Your task to perform on an android device: turn notification dots on Image 0: 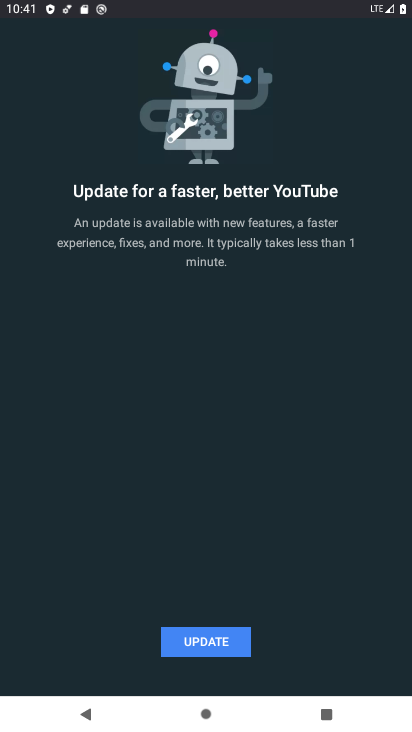
Step 0: press home button
Your task to perform on an android device: turn notification dots on Image 1: 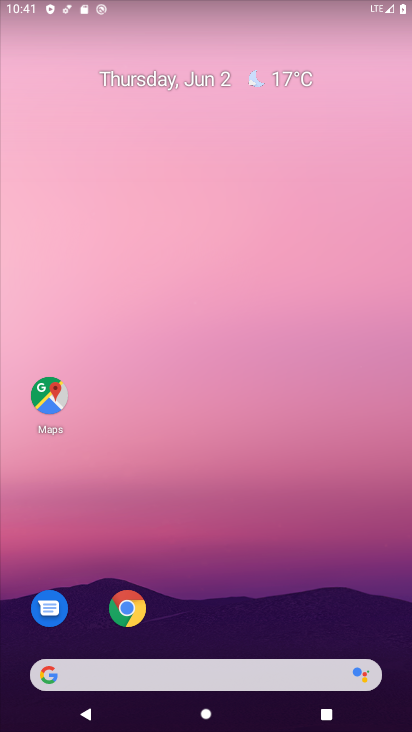
Step 1: drag from (298, 541) to (89, 13)
Your task to perform on an android device: turn notification dots on Image 2: 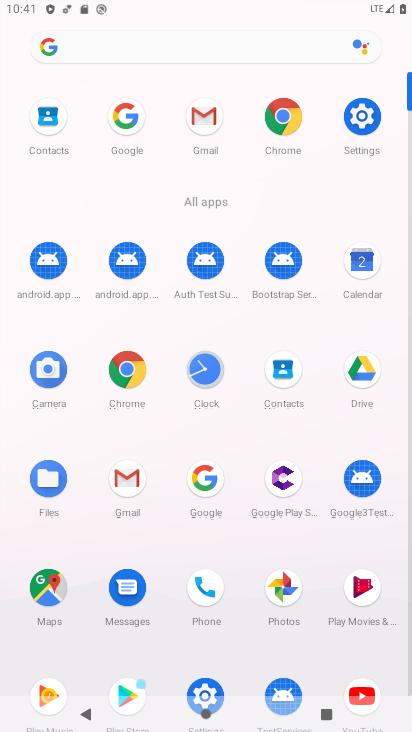
Step 2: click (374, 109)
Your task to perform on an android device: turn notification dots on Image 3: 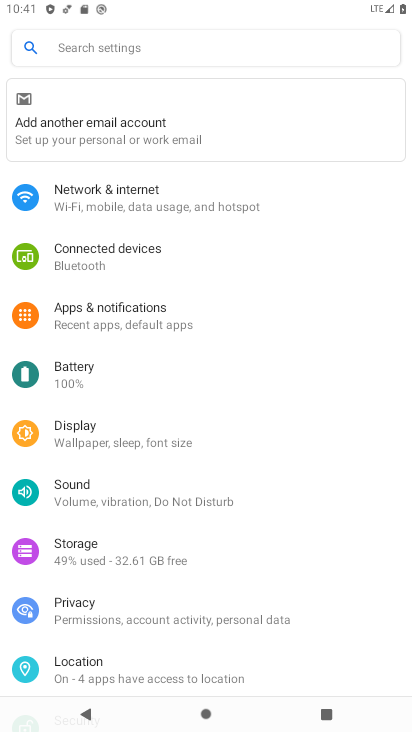
Step 3: click (187, 323)
Your task to perform on an android device: turn notification dots on Image 4: 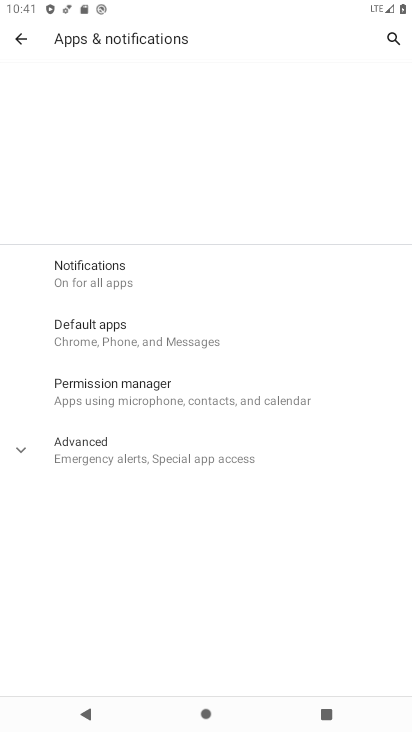
Step 4: click (147, 273)
Your task to perform on an android device: turn notification dots on Image 5: 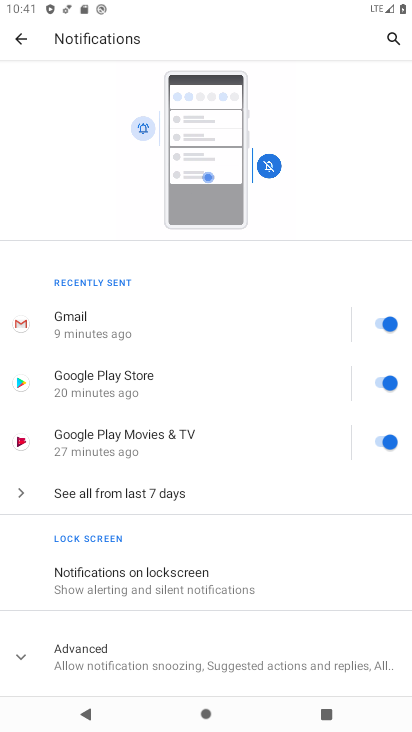
Step 5: click (215, 657)
Your task to perform on an android device: turn notification dots on Image 6: 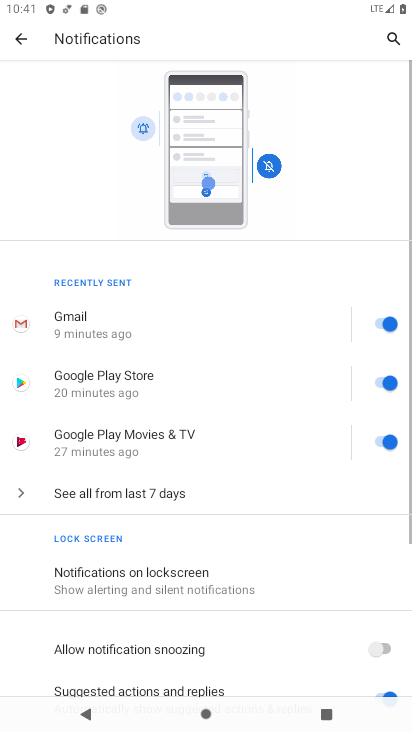
Step 6: task complete